Your task to perform on an android device: change timer sound Image 0: 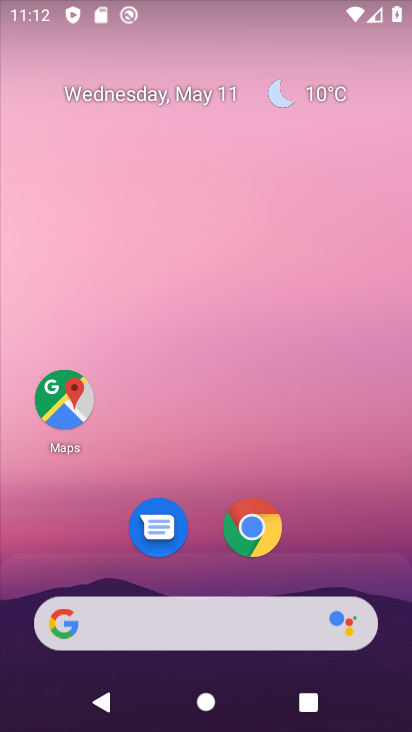
Step 0: drag from (202, 584) to (258, 90)
Your task to perform on an android device: change timer sound Image 1: 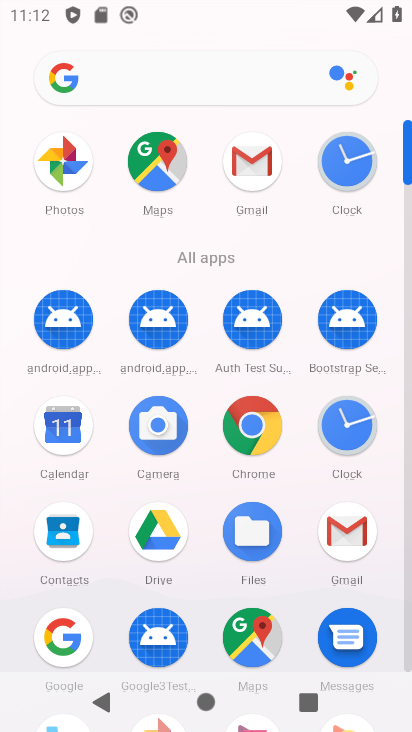
Step 1: click (345, 440)
Your task to perform on an android device: change timer sound Image 2: 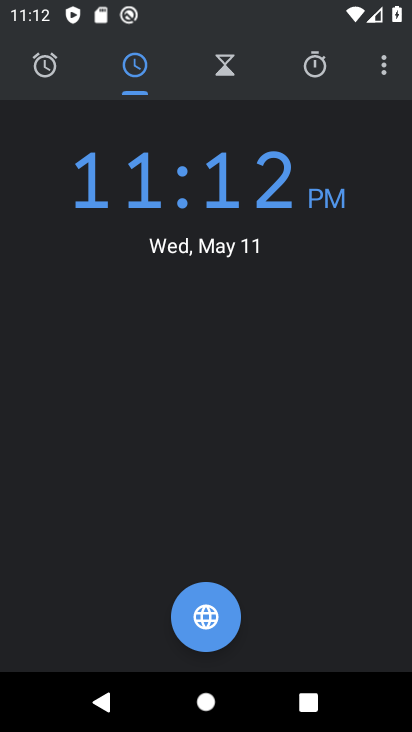
Step 2: click (376, 72)
Your task to perform on an android device: change timer sound Image 3: 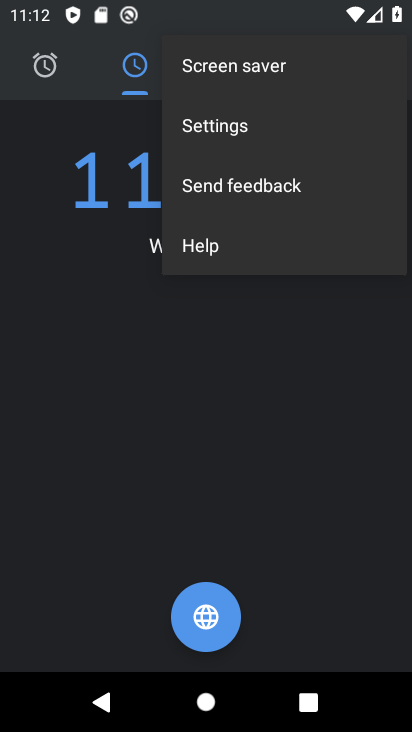
Step 3: click (226, 132)
Your task to perform on an android device: change timer sound Image 4: 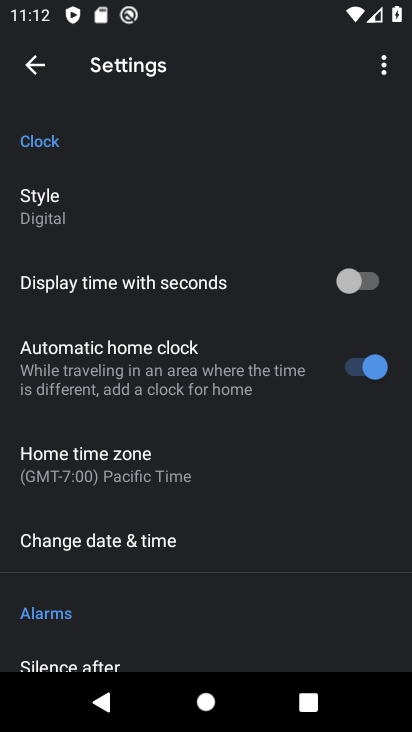
Step 4: drag from (128, 578) to (201, 120)
Your task to perform on an android device: change timer sound Image 5: 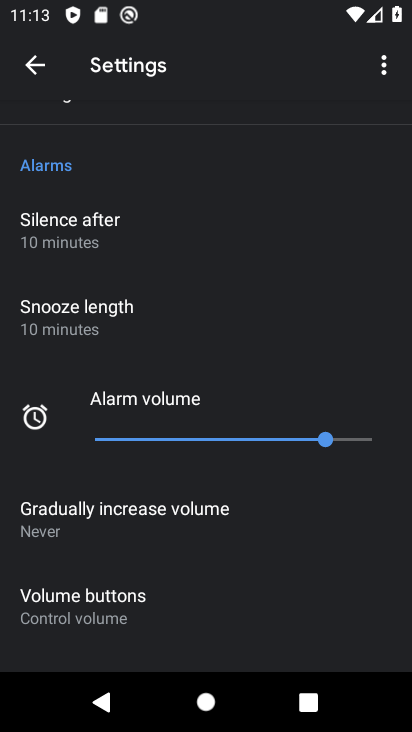
Step 5: drag from (110, 580) to (168, 236)
Your task to perform on an android device: change timer sound Image 6: 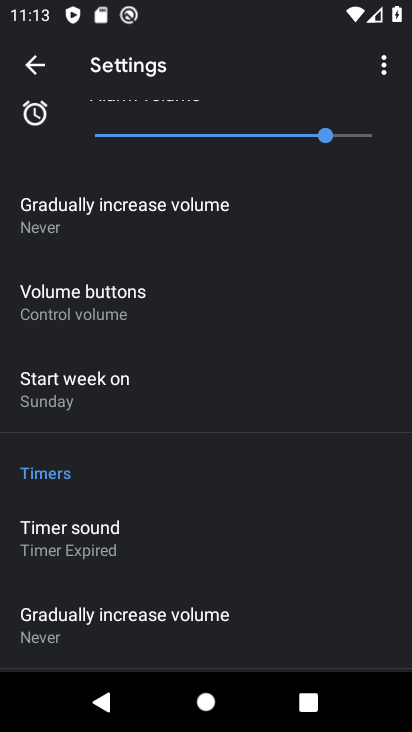
Step 6: click (123, 538)
Your task to perform on an android device: change timer sound Image 7: 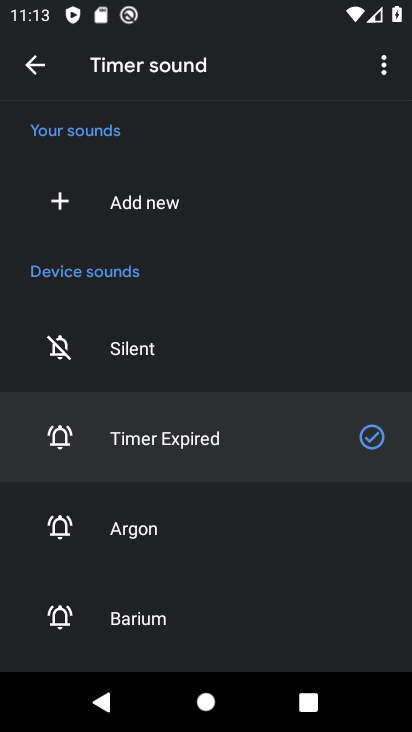
Step 7: click (134, 618)
Your task to perform on an android device: change timer sound Image 8: 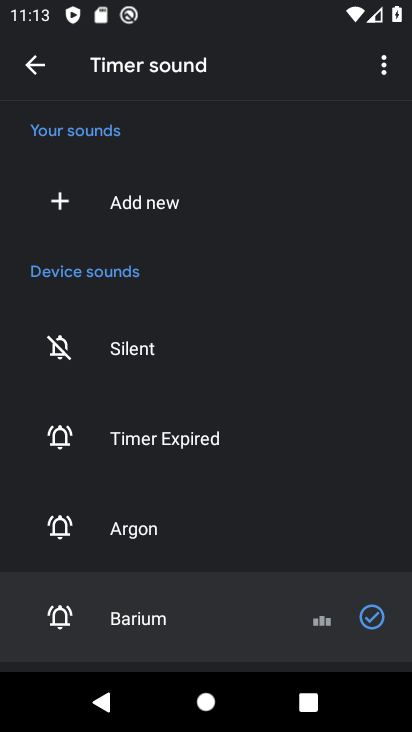
Step 8: task complete